Your task to perform on an android device: turn on javascript in the chrome app Image 0: 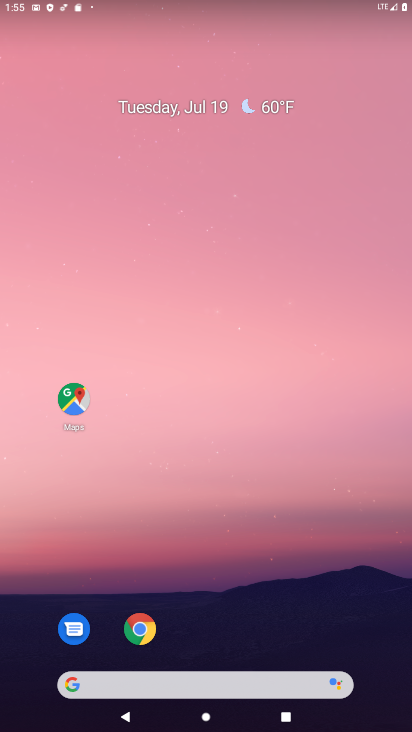
Step 0: click (140, 632)
Your task to perform on an android device: turn on javascript in the chrome app Image 1: 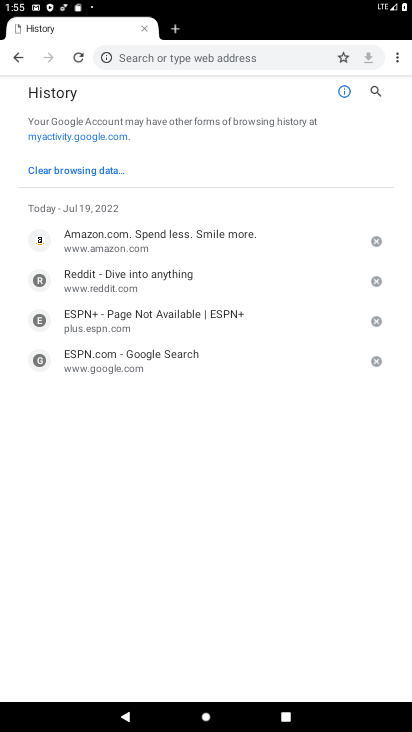
Step 1: click (398, 60)
Your task to perform on an android device: turn on javascript in the chrome app Image 2: 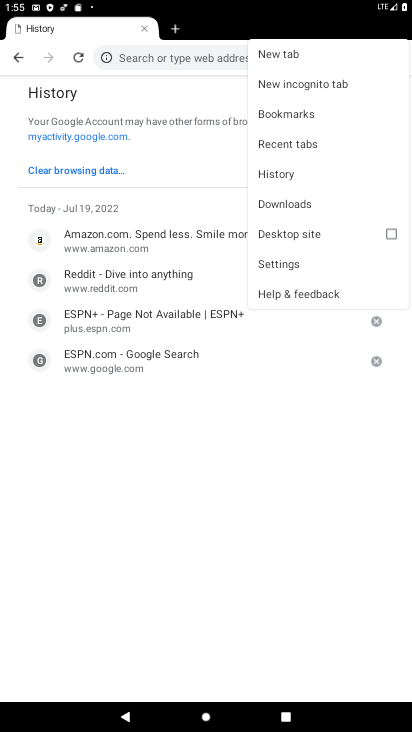
Step 2: click (283, 258)
Your task to perform on an android device: turn on javascript in the chrome app Image 3: 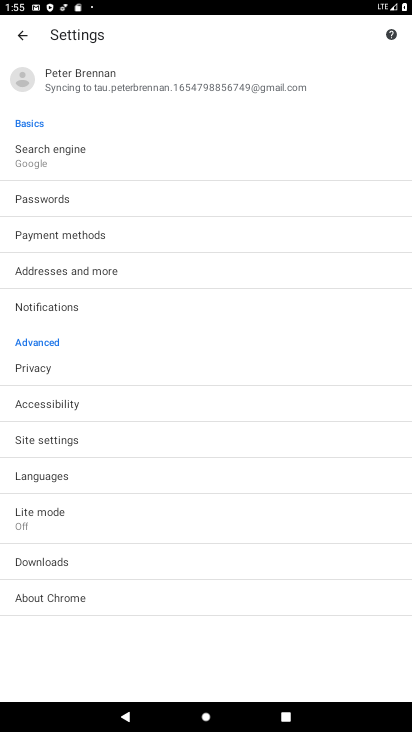
Step 3: click (44, 443)
Your task to perform on an android device: turn on javascript in the chrome app Image 4: 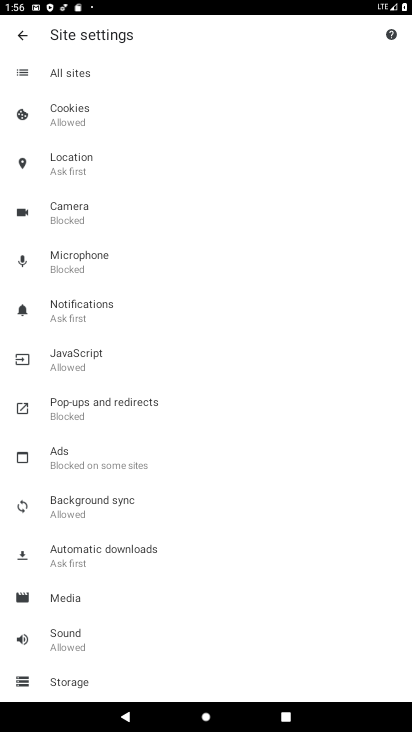
Step 4: click (64, 348)
Your task to perform on an android device: turn on javascript in the chrome app Image 5: 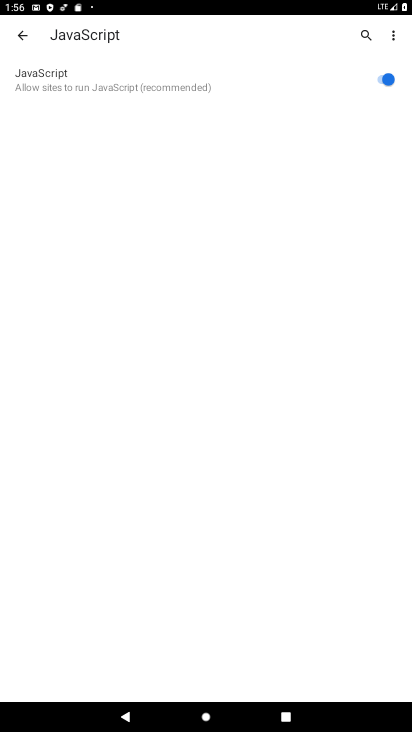
Step 5: task complete